Your task to perform on an android device: uninstall "ZOOM Cloud Meetings" Image 0: 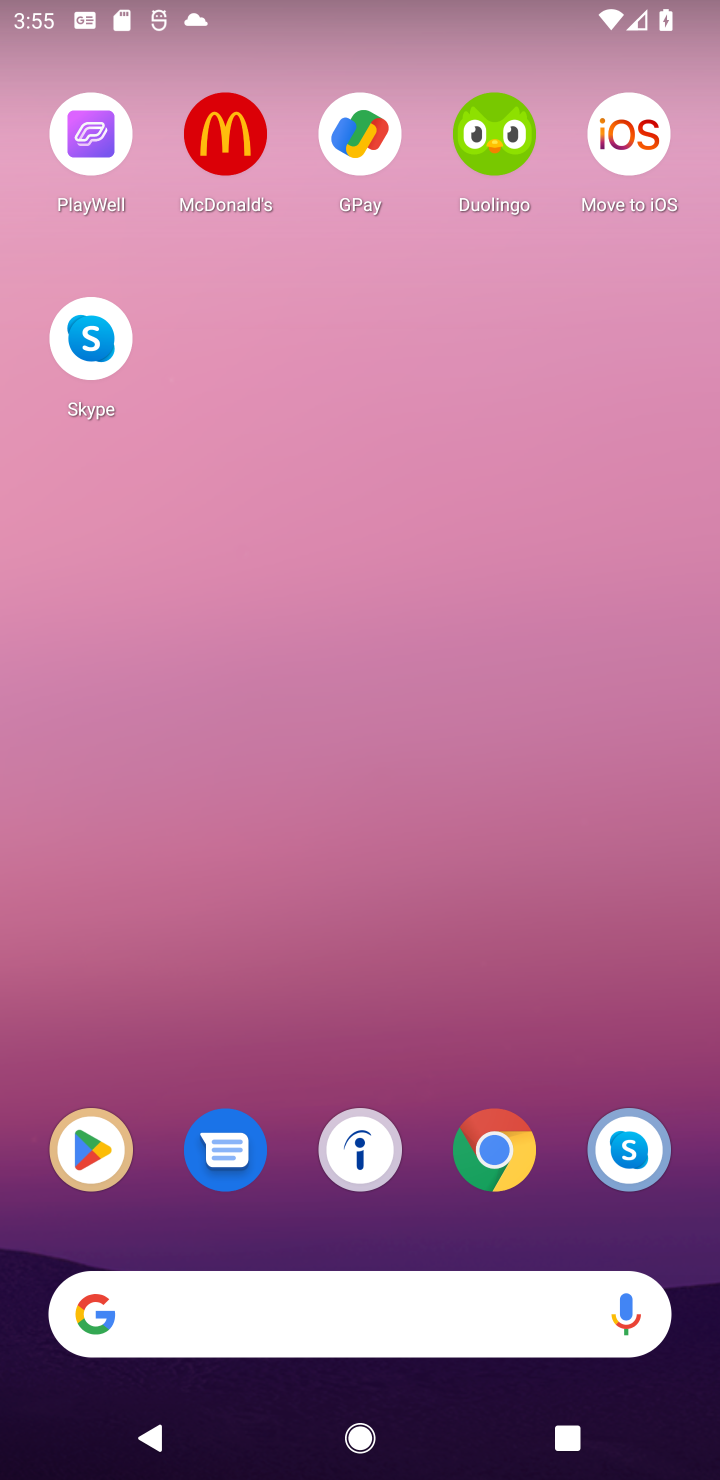
Step 0: click (83, 1185)
Your task to perform on an android device: uninstall "ZOOM Cloud Meetings" Image 1: 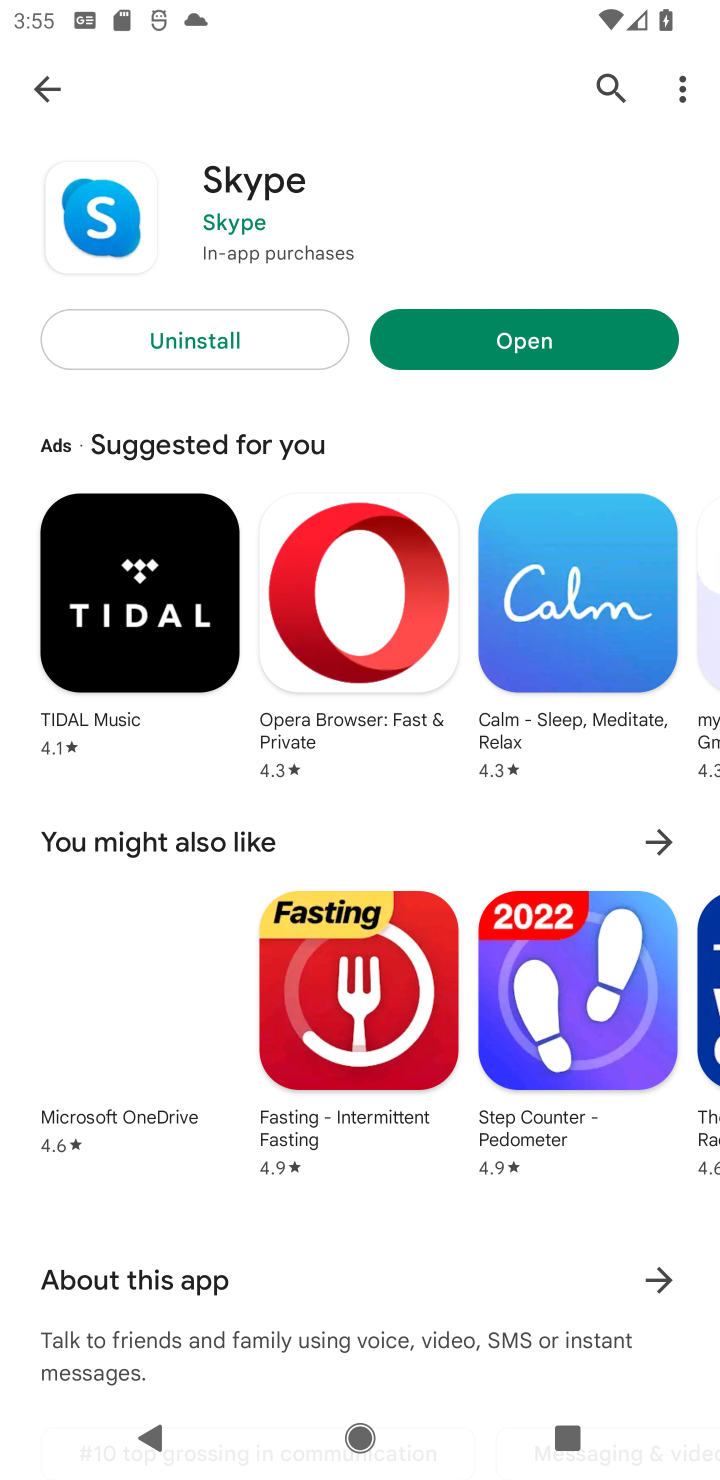
Step 1: click (36, 89)
Your task to perform on an android device: uninstall "ZOOM Cloud Meetings" Image 2: 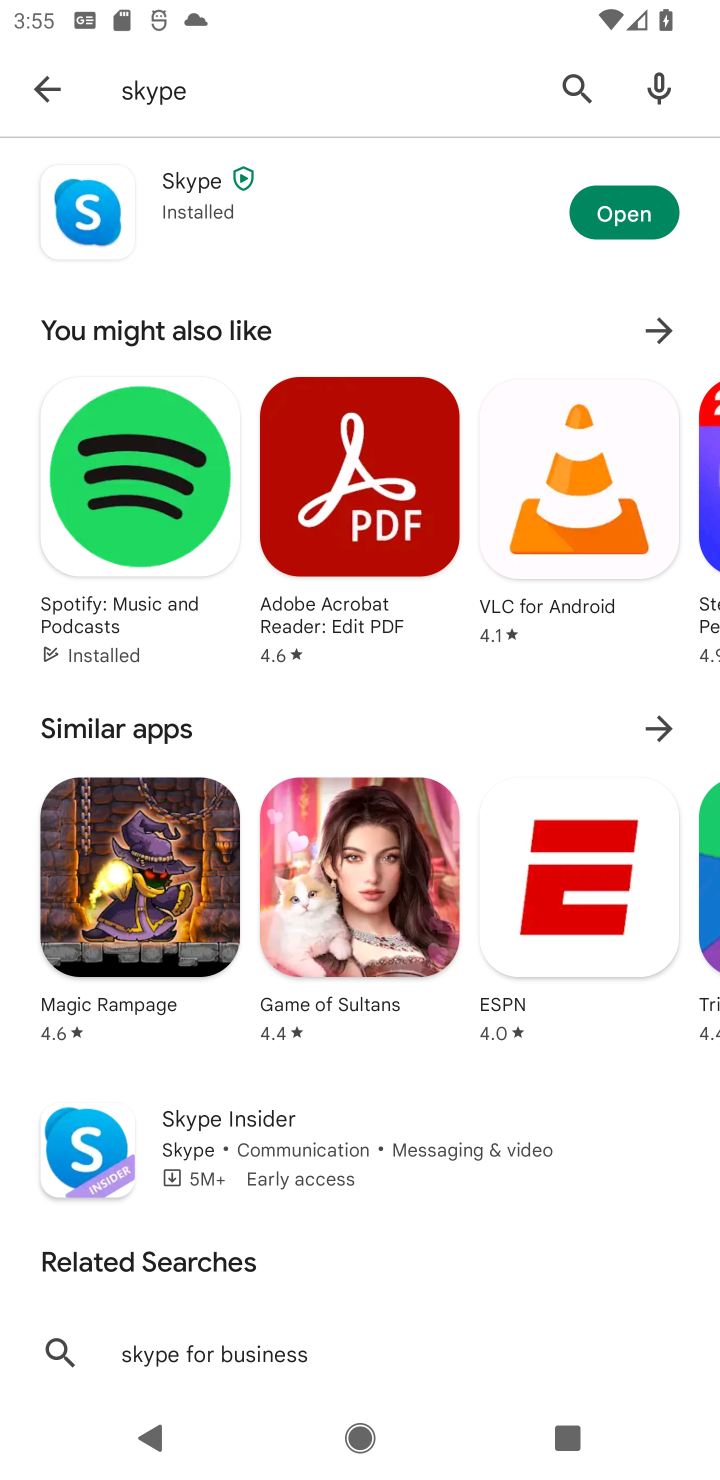
Step 2: click (614, 105)
Your task to perform on an android device: uninstall "ZOOM Cloud Meetings" Image 3: 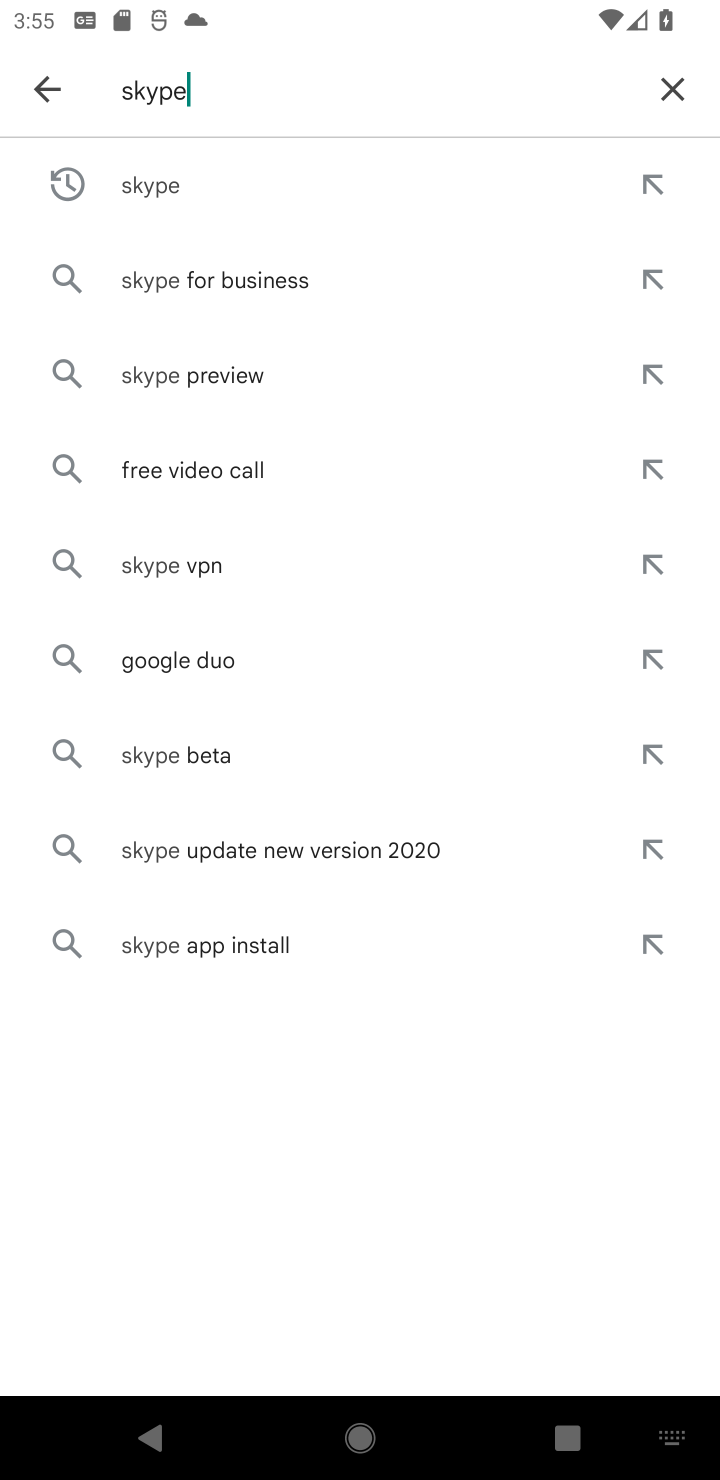
Step 3: click (652, 93)
Your task to perform on an android device: uninstall "ZOOM Cloud Meetings" Image 4: 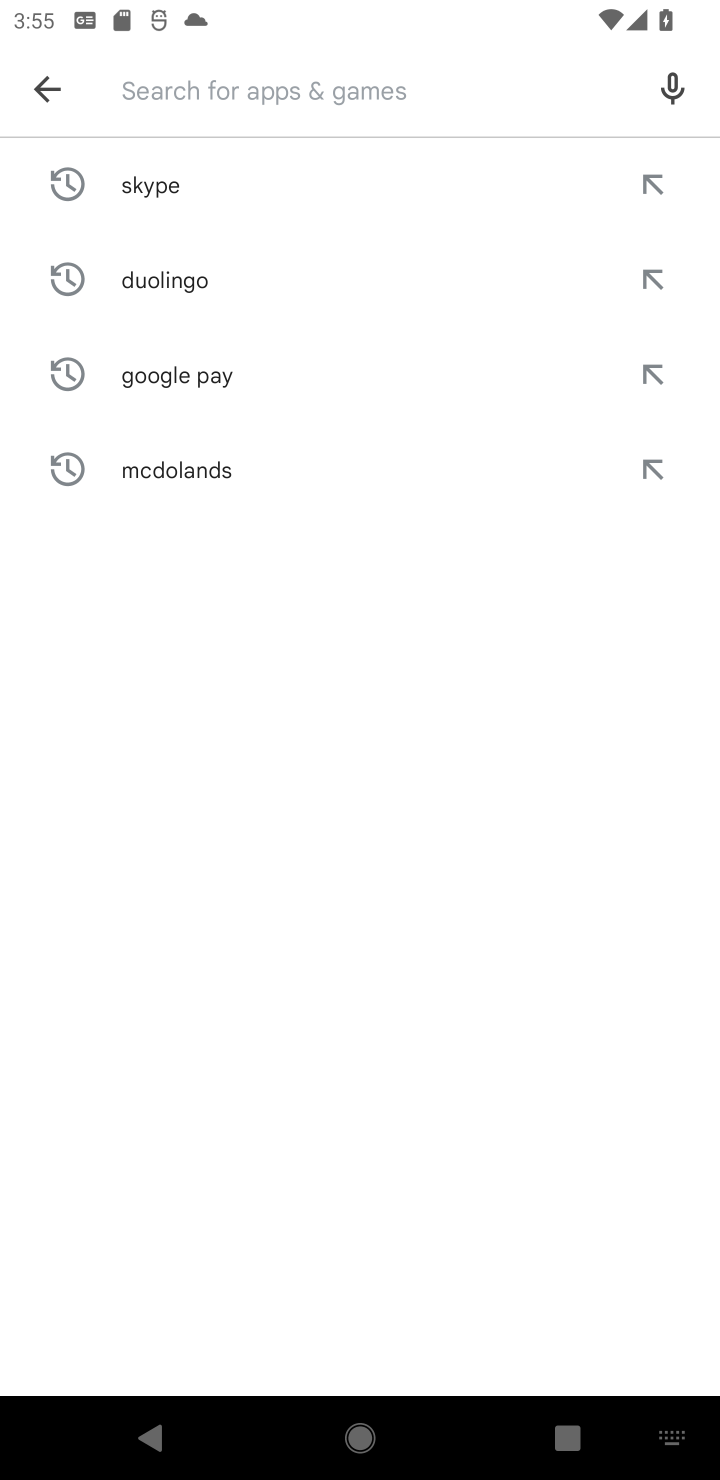
Step 4: type "zoom cloud "
Your task to perform on an android device: uninstall "ZOOM Cloud Meetings" Image 5: 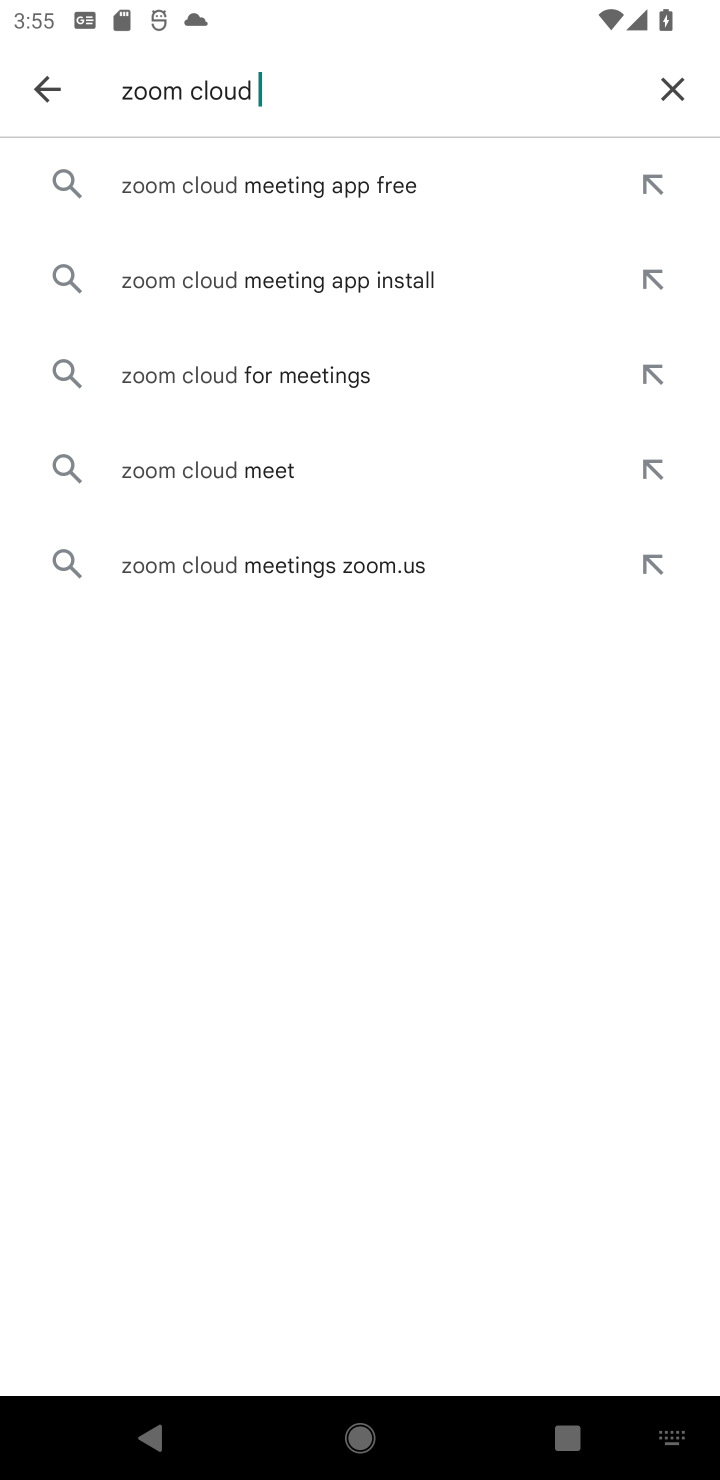
Step 5: click (253, 199)
Your task to perform on an android device: uninstall "ZOOM Cloud Meetings" Image 6: 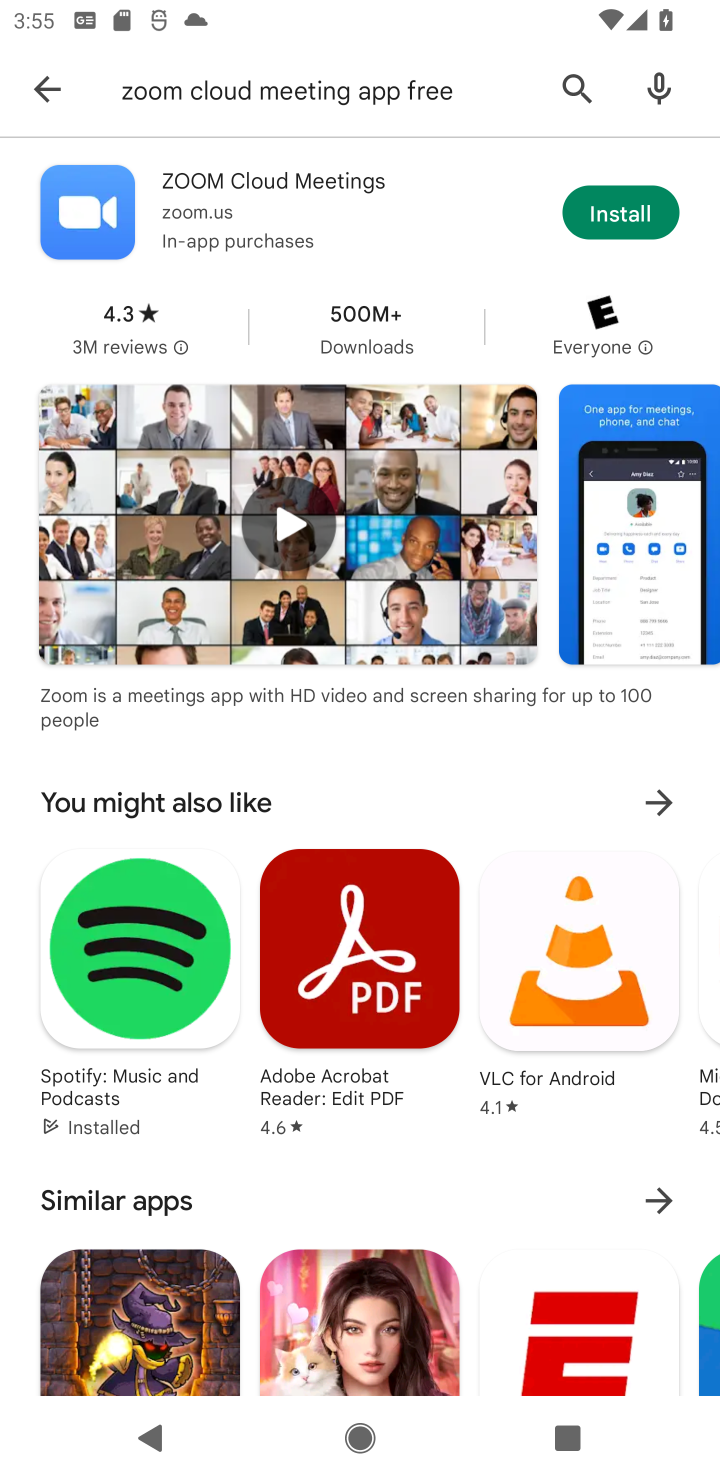
Step 6: task complete